Your task to perform on an android device: check out phone information Image 0: 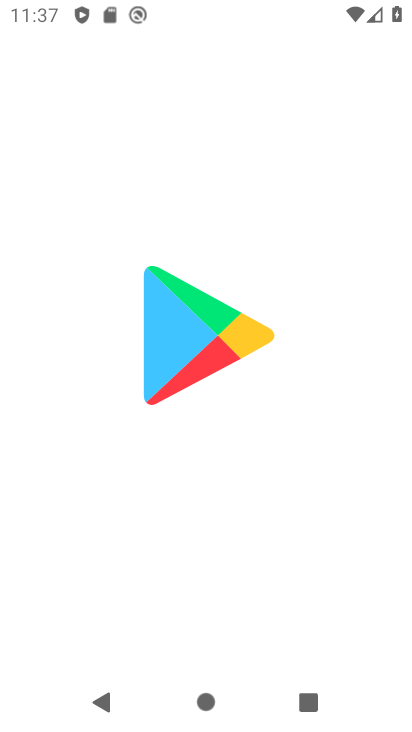
Step 0: drag from (347, 561) to (409, 250)
Your task to perform on an android device: check out phone information Image 1: 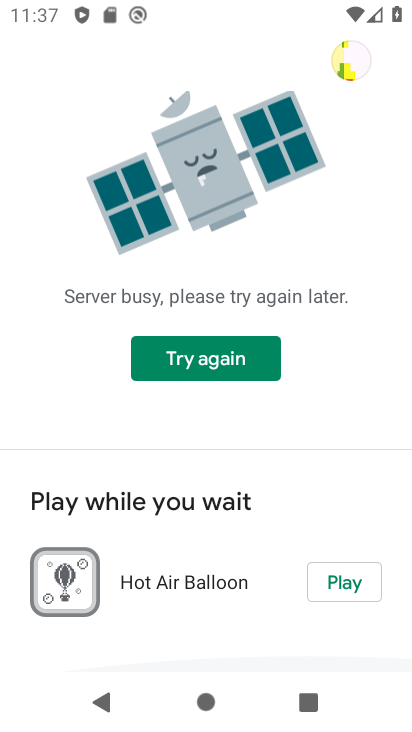
Step 1: press home button
Your task to perform on an android device: check out phone information Image 2: 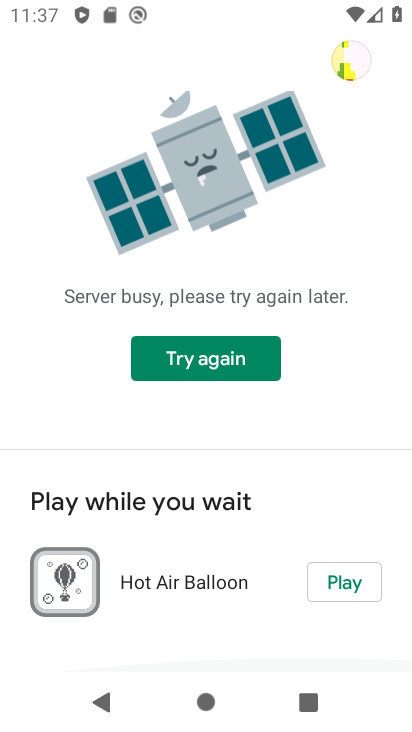
Step 2: click (367, 423)
Your task to perform on an android device: check out phone information Image 3: 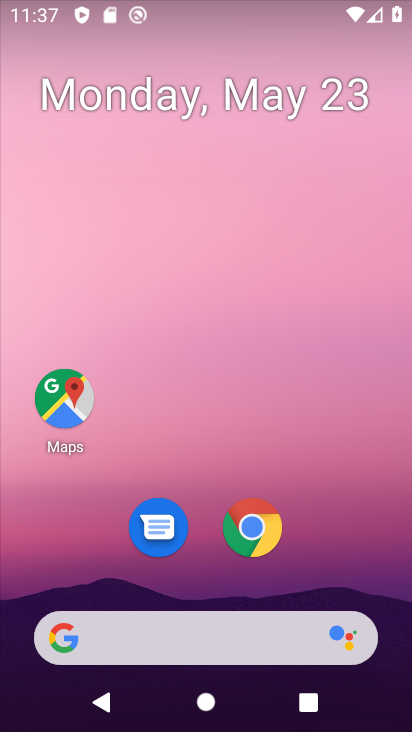
Step 3: drag from (347, 478) to (368, 96)
Your task to perform on an android device: check out phone information Image 4: 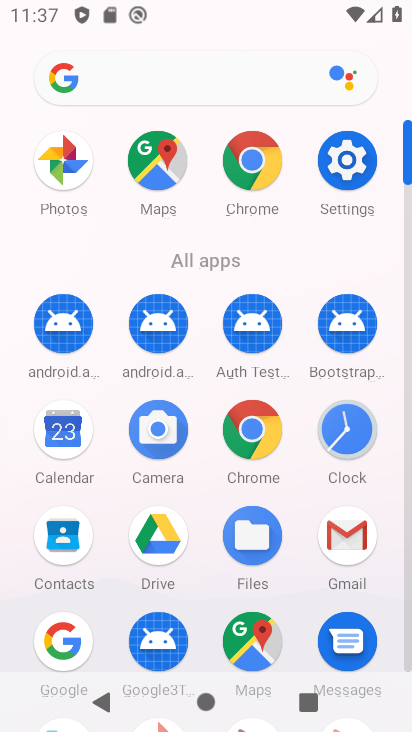
Step 4: drag from (348, 160) to (103, 184)
Your task to perform on an android device: check out phone information Image 5: 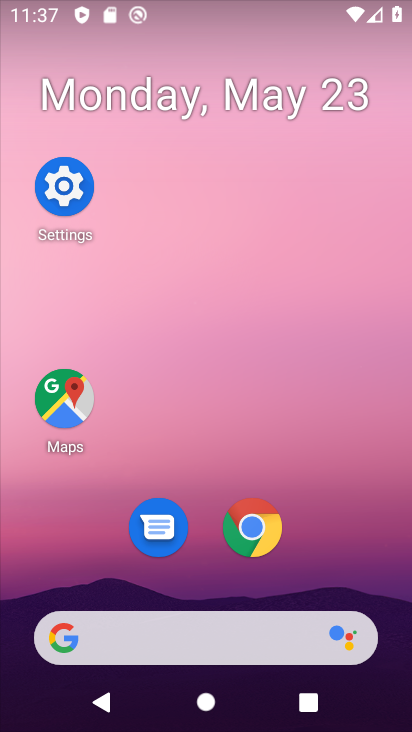
Step 5: click (82, 184)
Your task to perform on an android device: check out phone information Image 6: 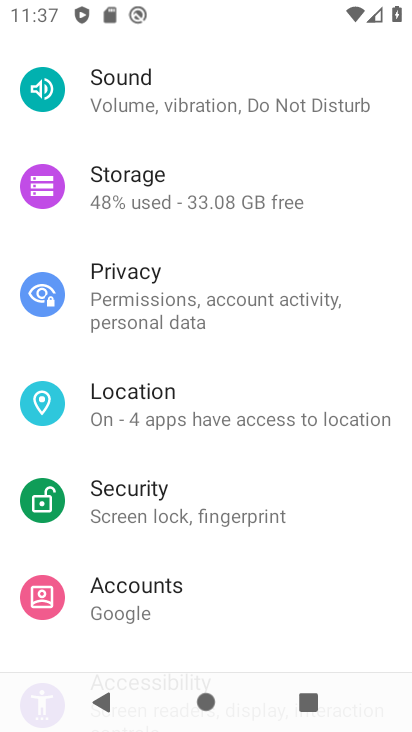
Step 6: drag from (239, 588) to (260, 154)
Your task to perform on an android device: check out phone information Image 7: 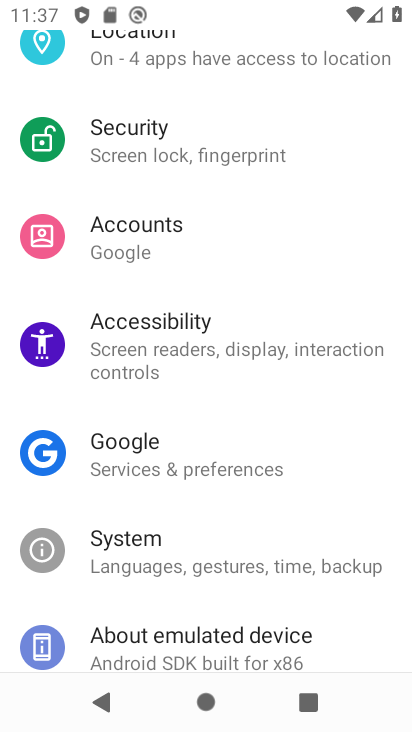
Step 7: click (239, 634)
Your task to perform on an android device: check out phone information Image 8: 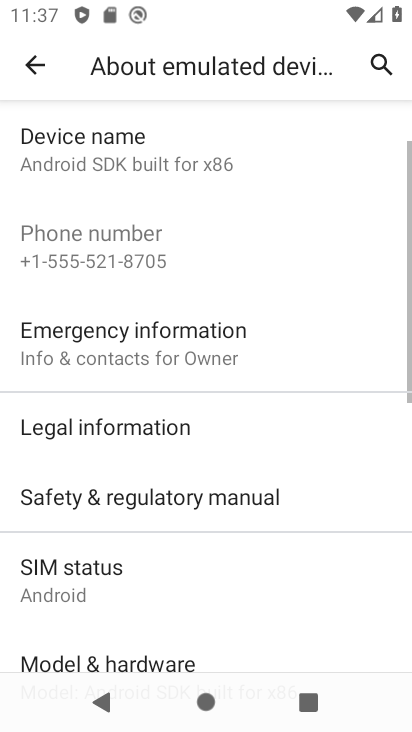
Step 8: drag from (199, 492) to (232, 221)
Your task to perform on an android device: check out phone information Image 9: 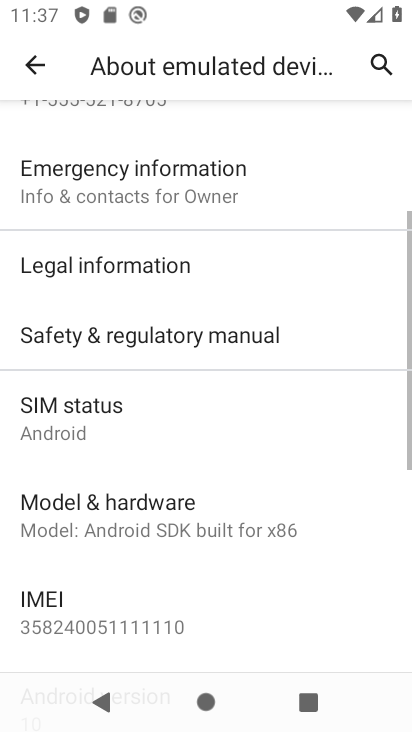
Step 9: click (191, 502)
Your task to perform on an android device: check out phone information Image 10: 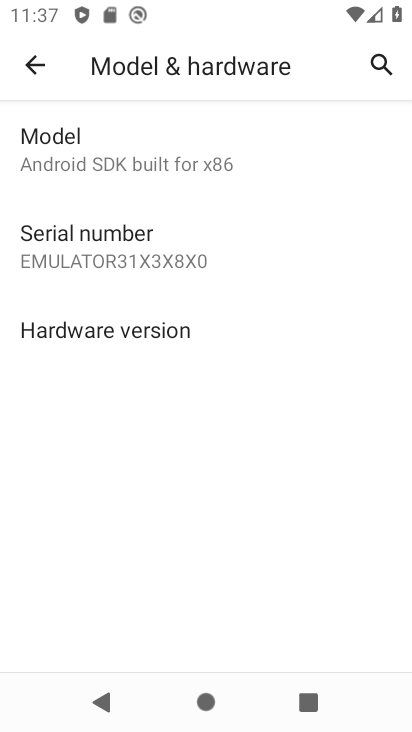
Step 10: task complete